Your task to perform on an android device: Is it going to rain this weekend? Image 0: 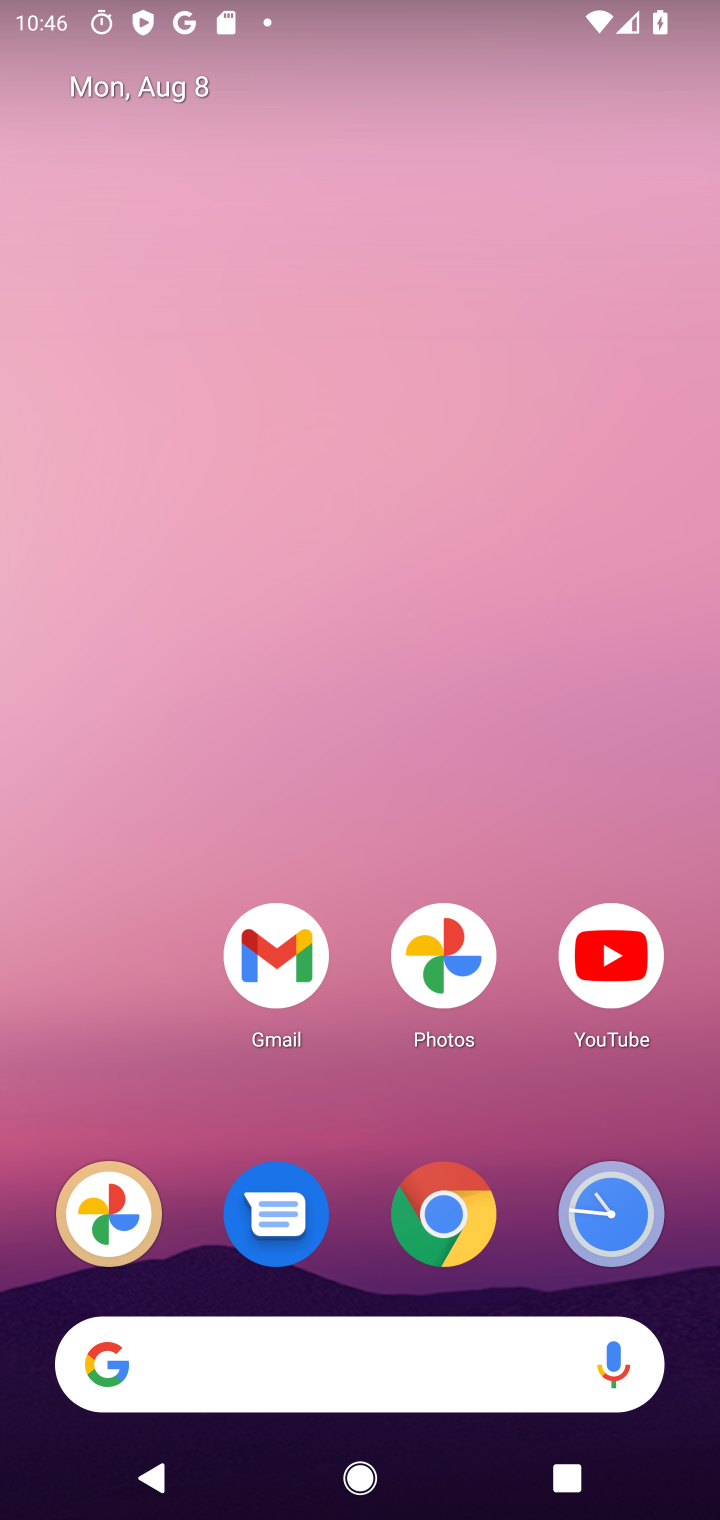
Step 0: click (193, 1350)
Your task to perform on an android device: Is it going to rain this weekend? Image 1: 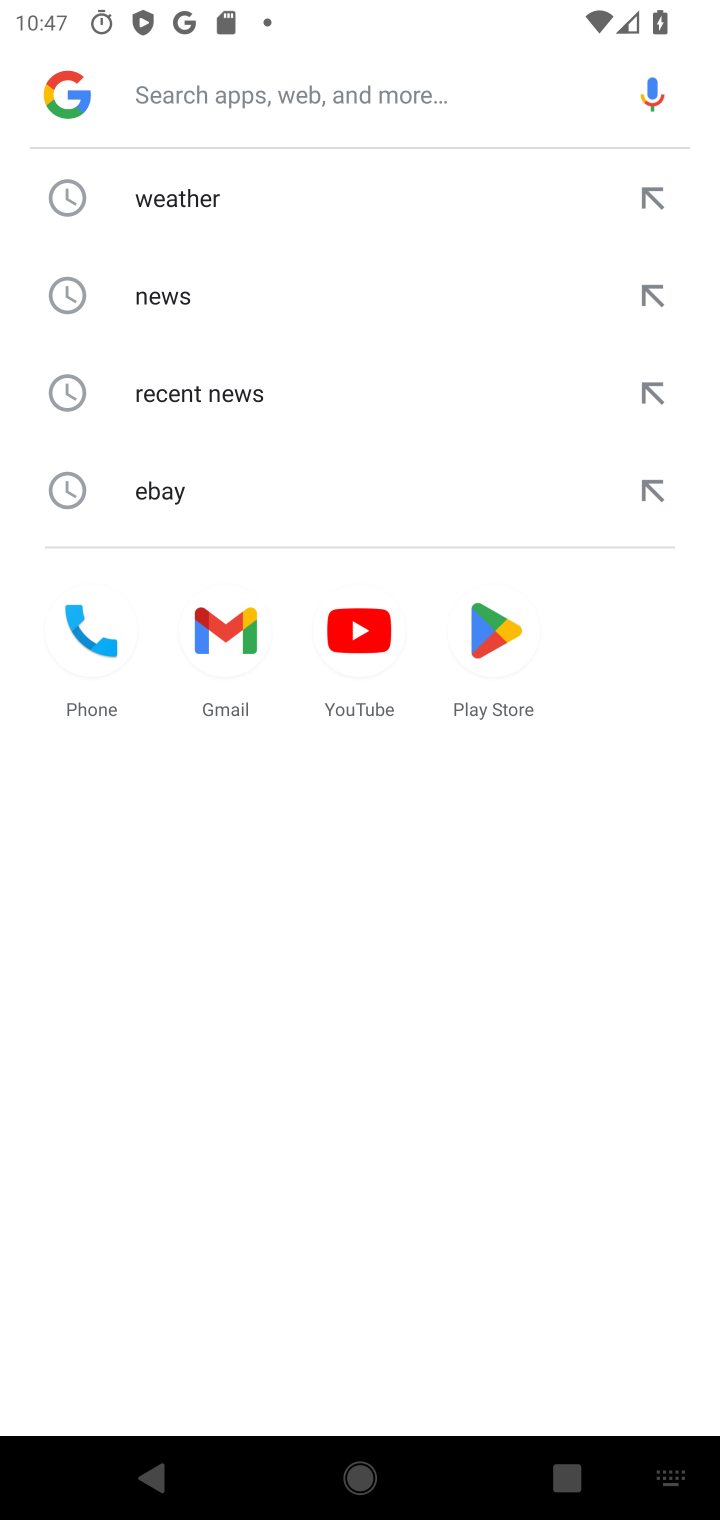
Step 1: type "Is it going to rain this weekend?"
Your task to perform on an android device: Is it going to rain this weekend? Image 2: 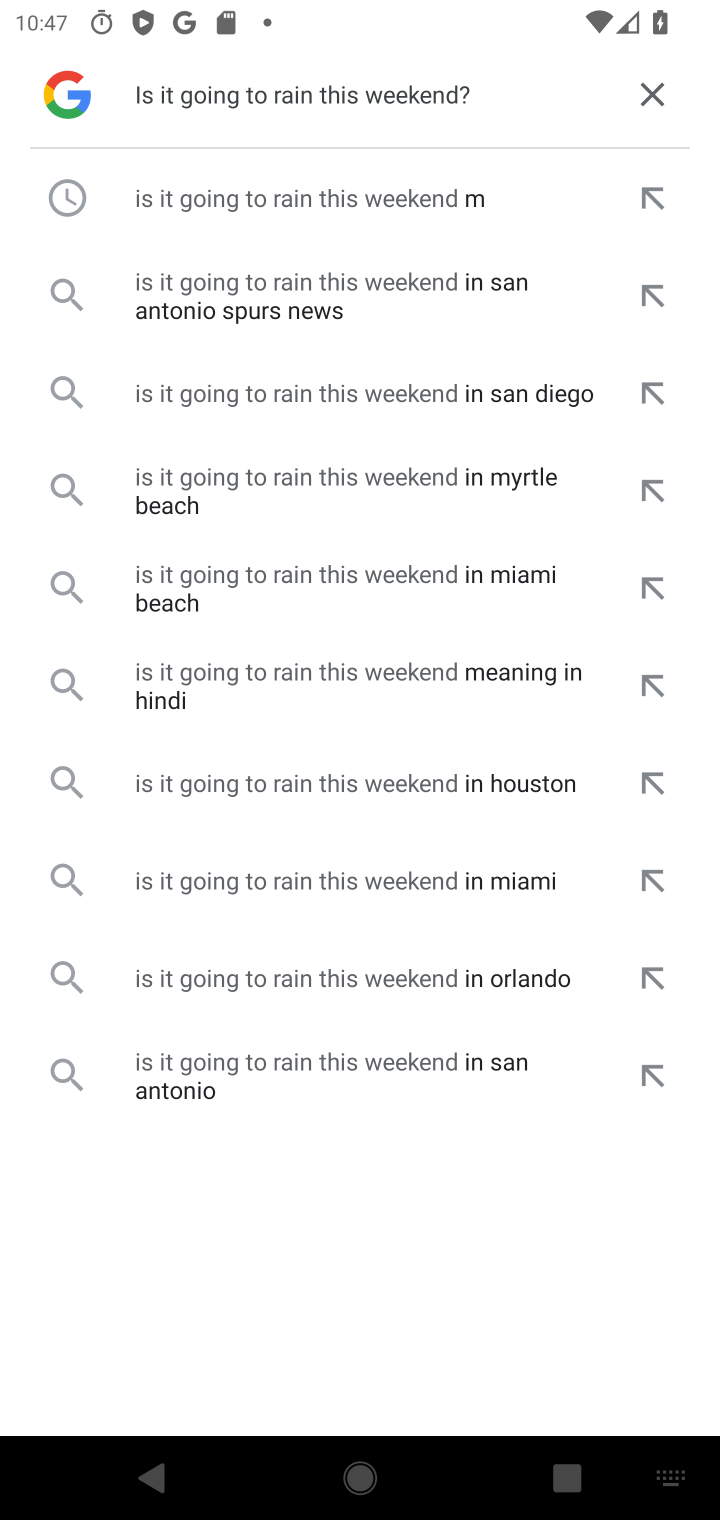
Step 2: type ""
Your task to perform on an android device: Is it going to rain this weekend? Image 3: 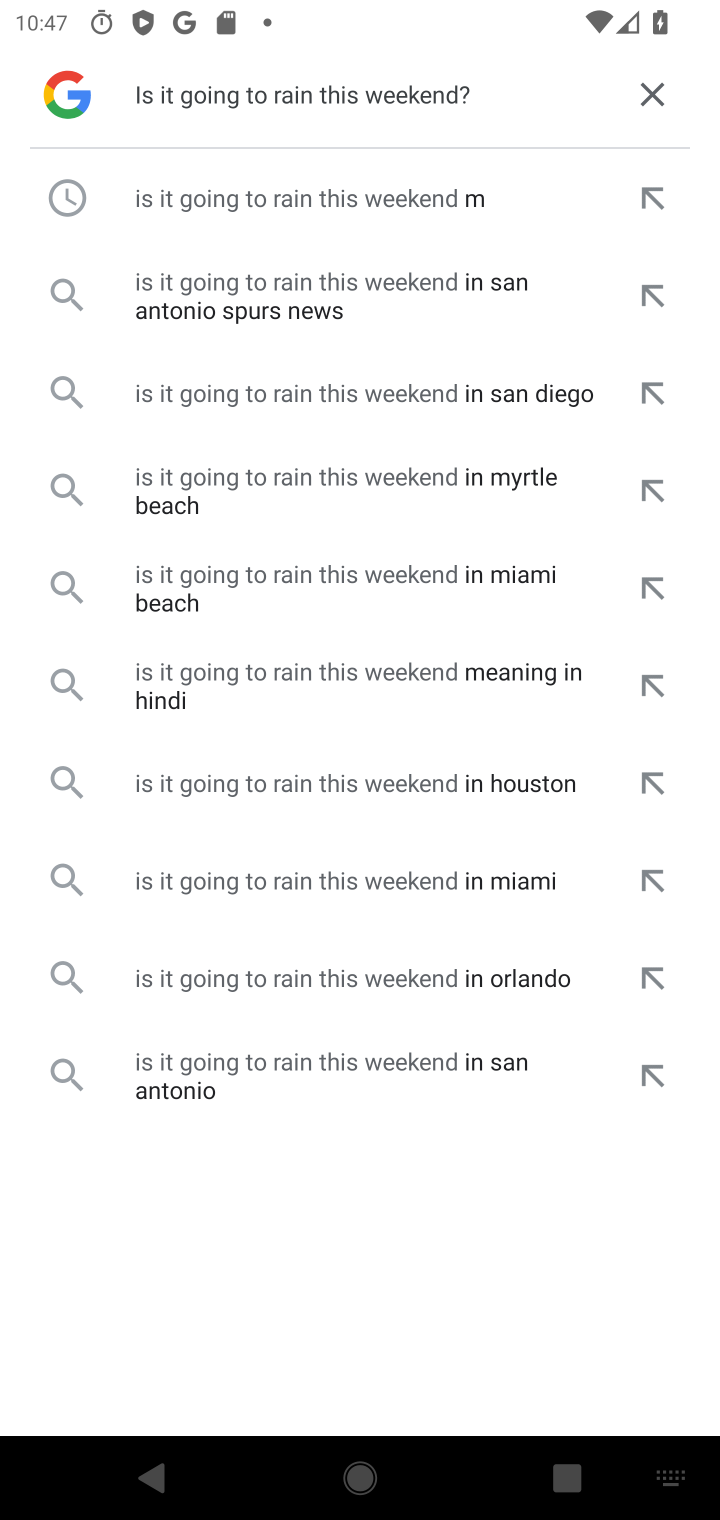
Step 3: task complete